Your task to perform on an android device: Open Youtube and go to the subscriptions tab Image 0: 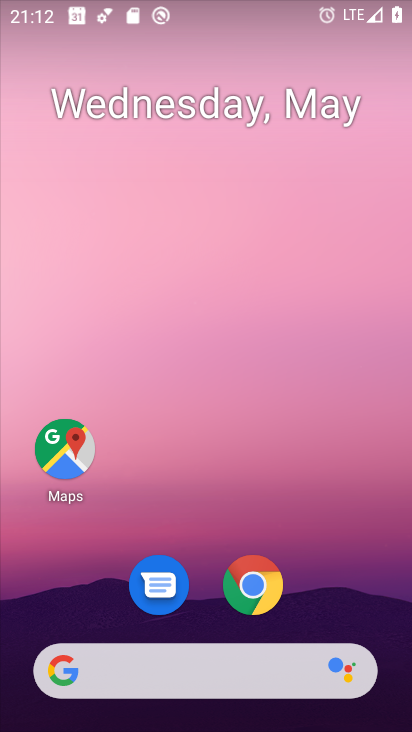
Step 0: drag from (303, 482) to (282, 30)
Your task to perform on an android device: Open Youtube and go to the subscriptions tab Image 1: 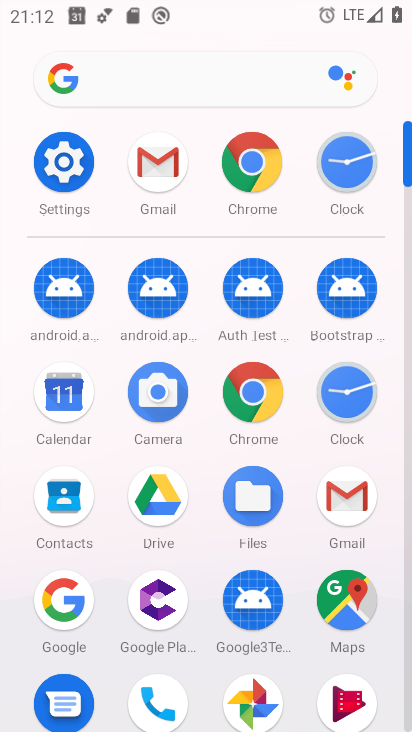
Step 1: drag from (222, 443) to (228, 171)
Your task to perform on an android device: Open Youtube and go to the subscriptions tab Image 2: 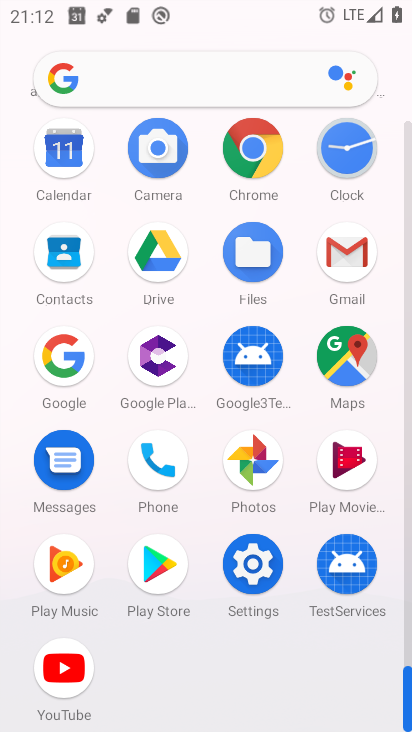
Step 2: click (64, 654)
Your task to perform on an android device: Open Youtube and go to the subscriptions tab Image 3: 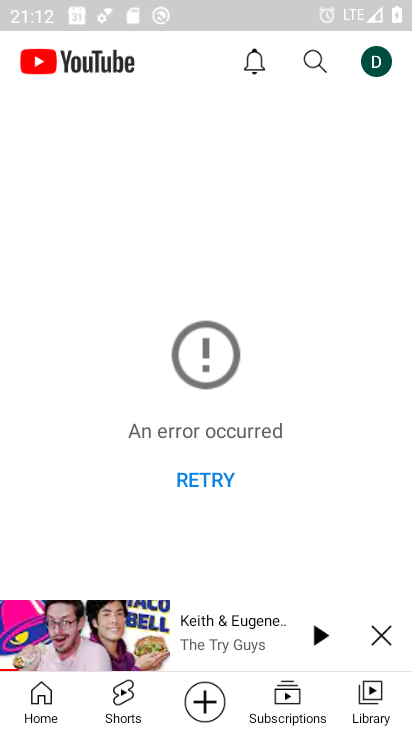
Step 3: click (283, 693)
Your task to perform on an android device: Open Youtube and go to the subscriptions tab Image 4: 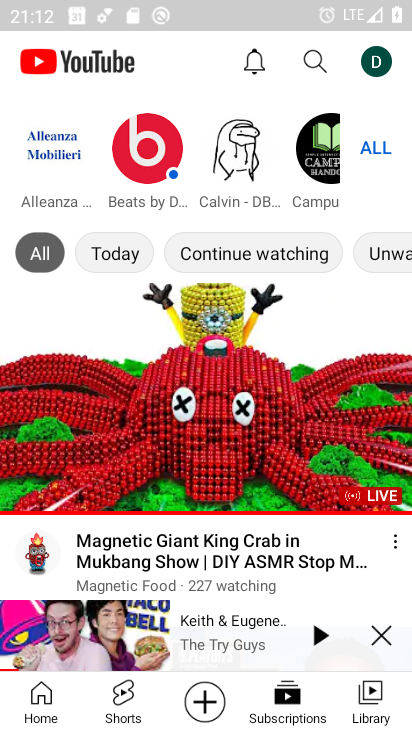
Step 4: task complete